Your task to perform on an android device: What is the news today? Image 0: 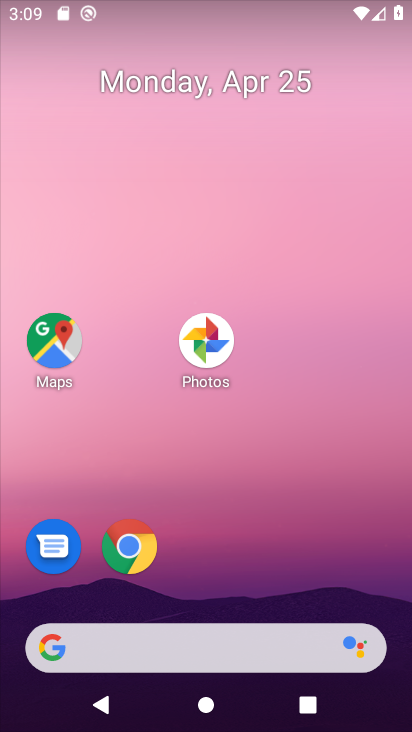
Step 0: drag from (292, 473) to (300, 266)
Your task to perform on an android device: What is the news today? Image 1: 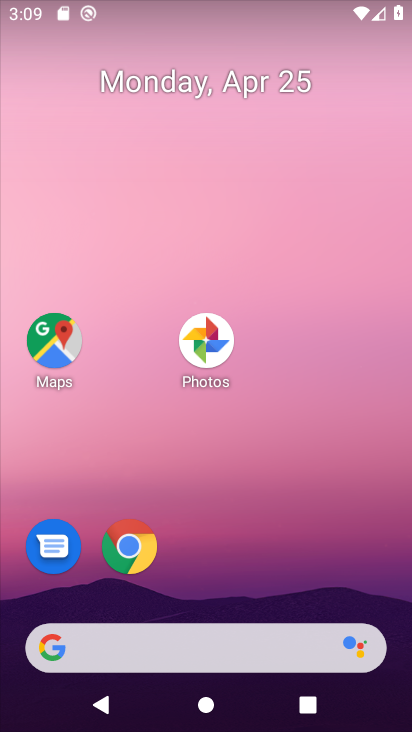
Step 1: drag from (304, 581) to (299, 195)
Your task to perform on an android device: What is the news today? Image 2: 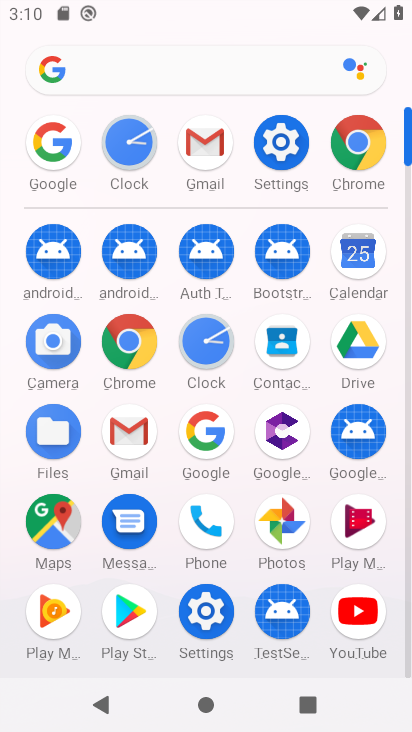
Step 2: click (360, 138)
Your task to perform on an android device: What is the news today? Image 3: 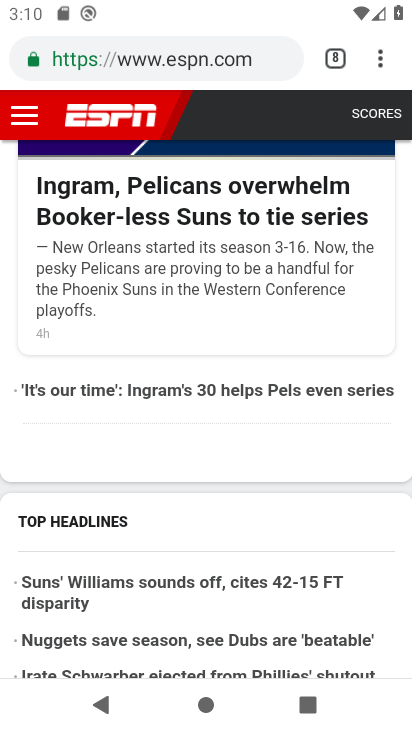
Step 3: click (363, 53)
Your task to perform on an android device: What is the news today? Image 4: 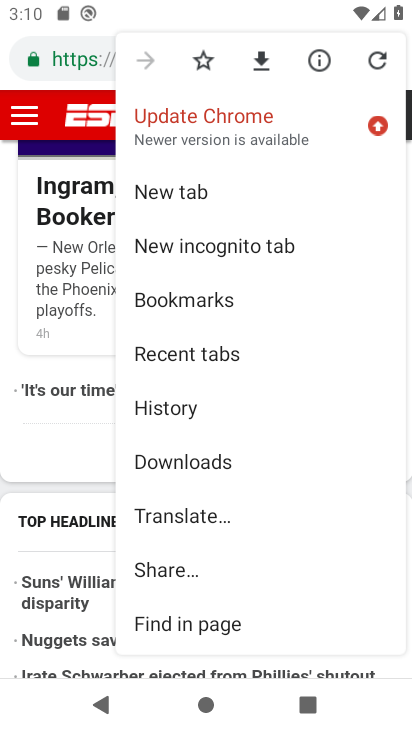
Step 4: click (213, 195)
Your task to perform on an android device: What is the news today? Image 5: 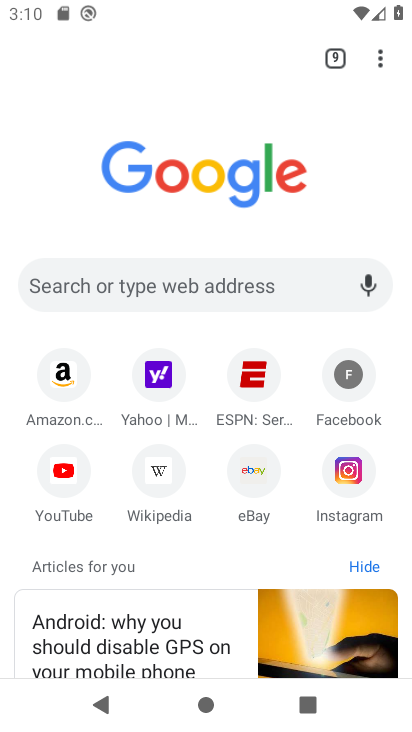
Step 5: click (237, 279)
Your task to perform on an android device: What is the news today? Image 6: 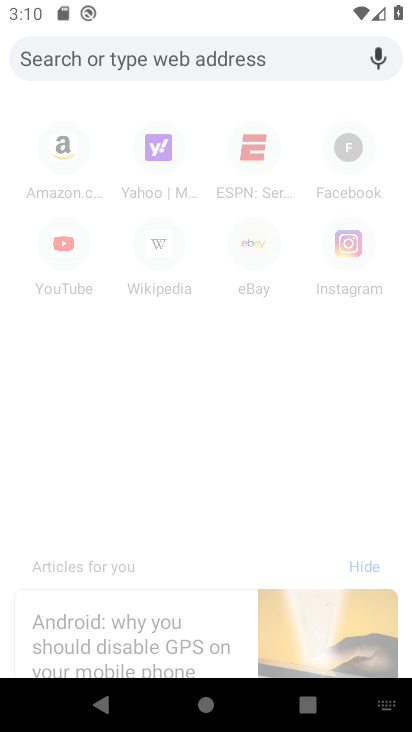
Step 6: type "What is the news today"
Your task to perform on an android device: What is the news today? Image 7: 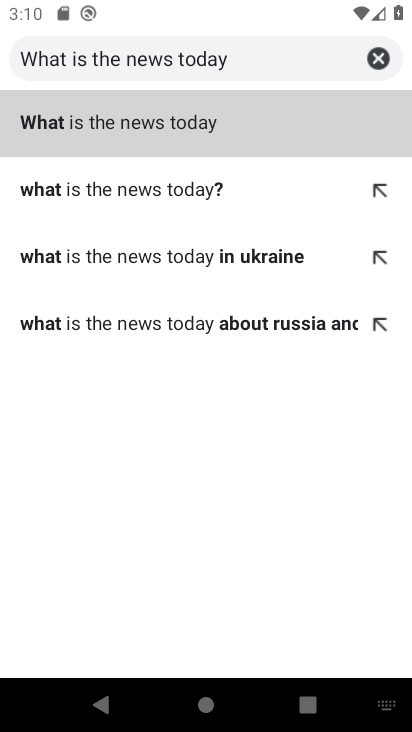
Step 7: click (115, 195)
Your task to perform on an android device: What is the news today? Image 8: 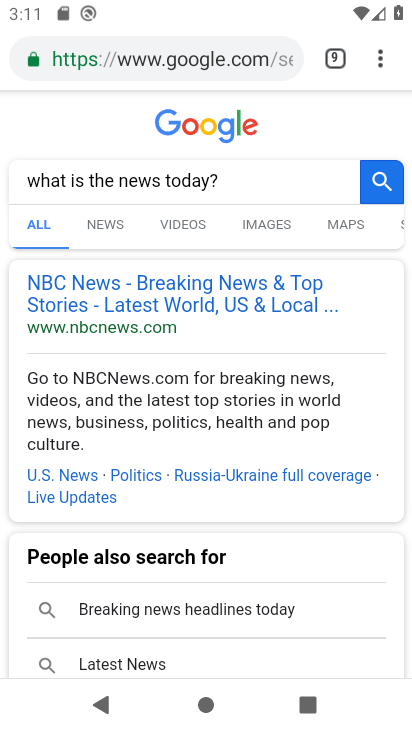
Step 8: task complete